Your task to perform on an android device: Open the calendar and show me this week's events? Image 0: 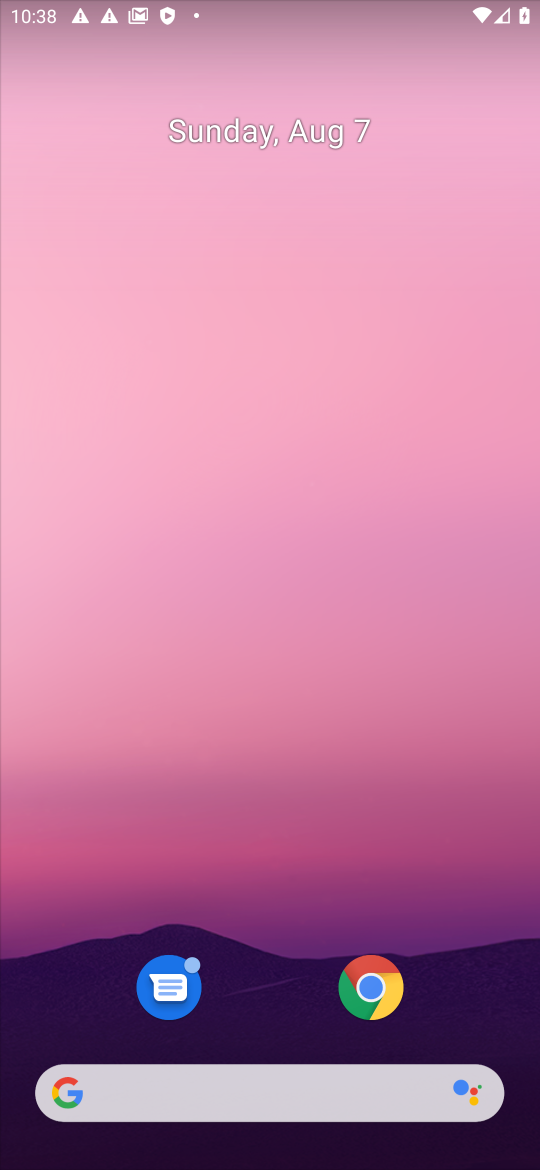
Step 0: drag from (285, 924) to (261, 507)
Your task to perform on an android device: Open the calendar and show me this week's events? Image 1: 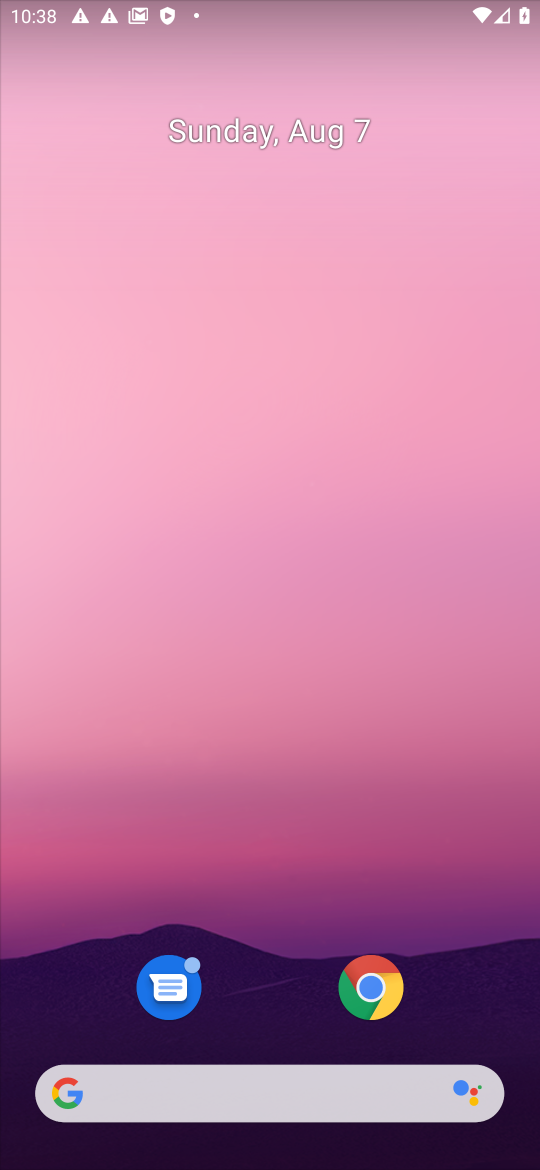
Step 1: drag from (235, 996) to (183, 50)
Your task to perform on an android device: Open the calendar and show me this week's events? Image 2: 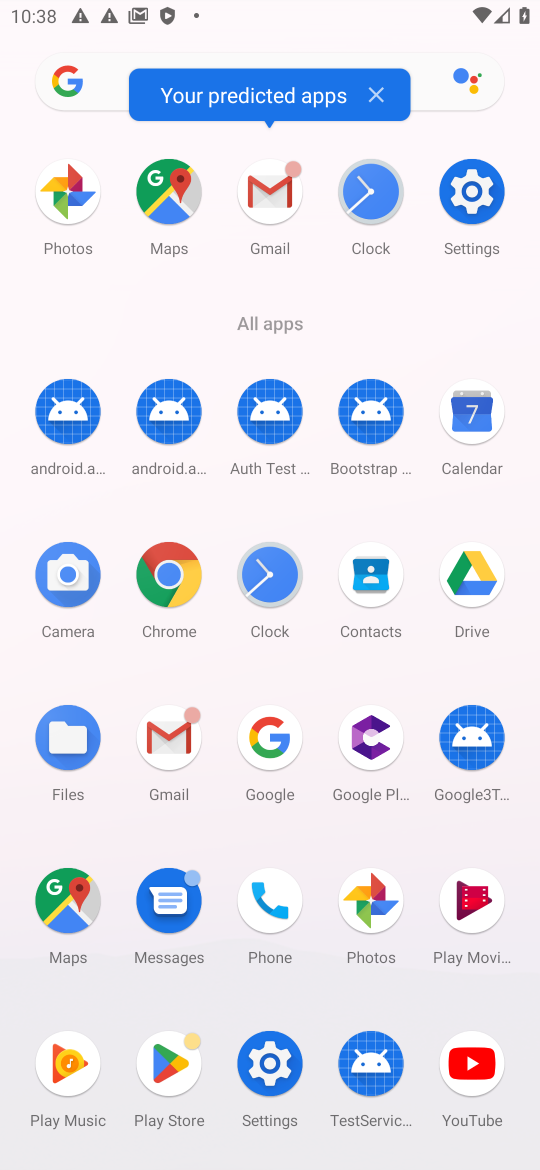
Step 2: click (468, 417)
Your task to perform on an android device: Open the calendar and show me this week's events? Image 3: 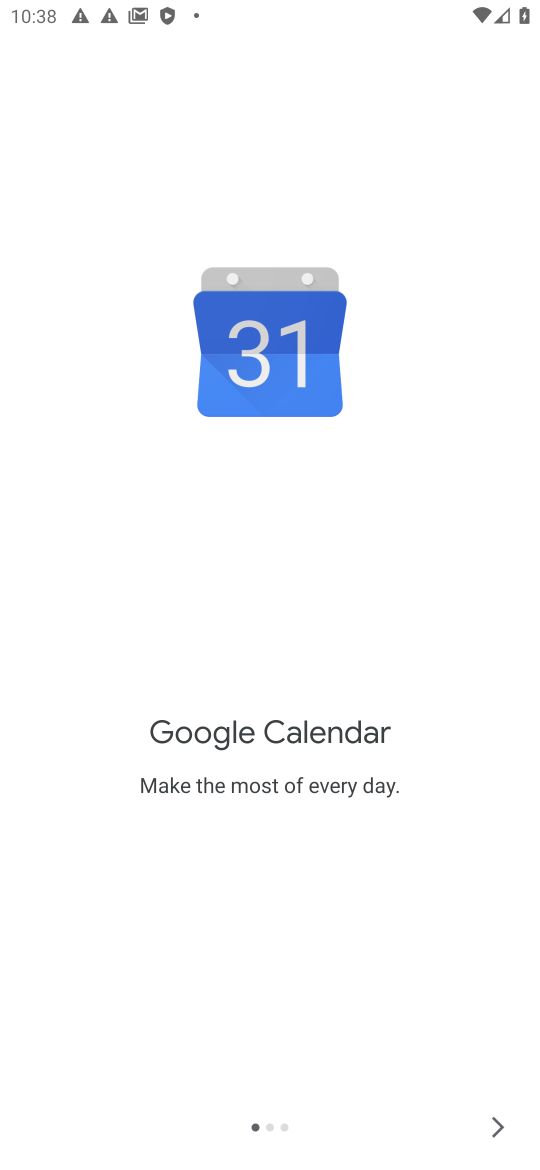
Step 3: click (497, 1128)
Your task to perform on an android device: Open the calendar and show me this week's events? Image 4: 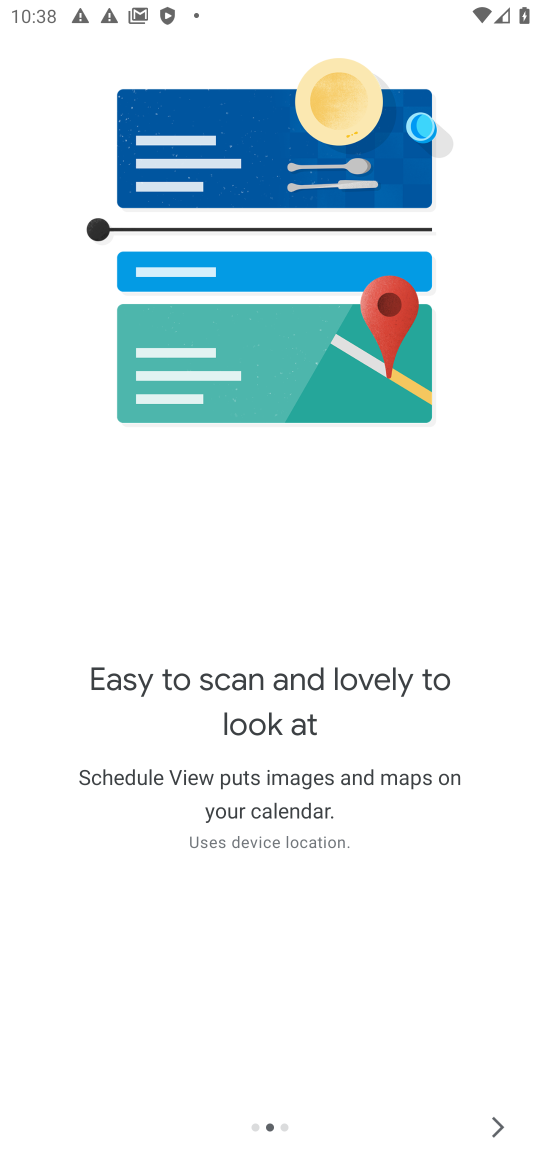
Step 4: click (497, 1128)
Your task to perform on an android device: Open the calendar and show me this week's events? Image 5: 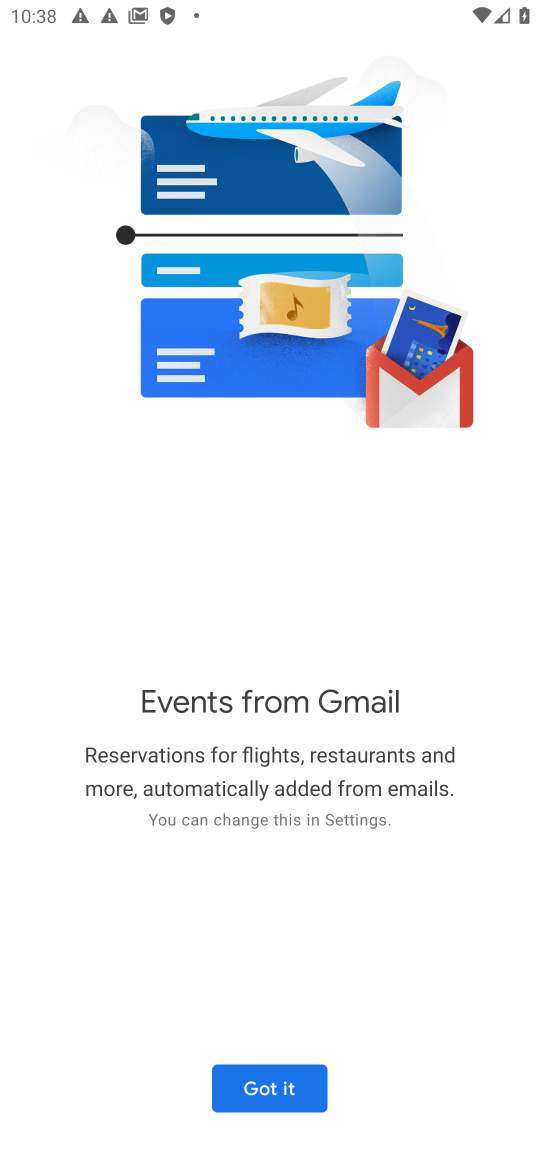
Step 5: click (276, 1082)
Your task to perform on an android device: Open the calendar and show me this week's events? Image 6: 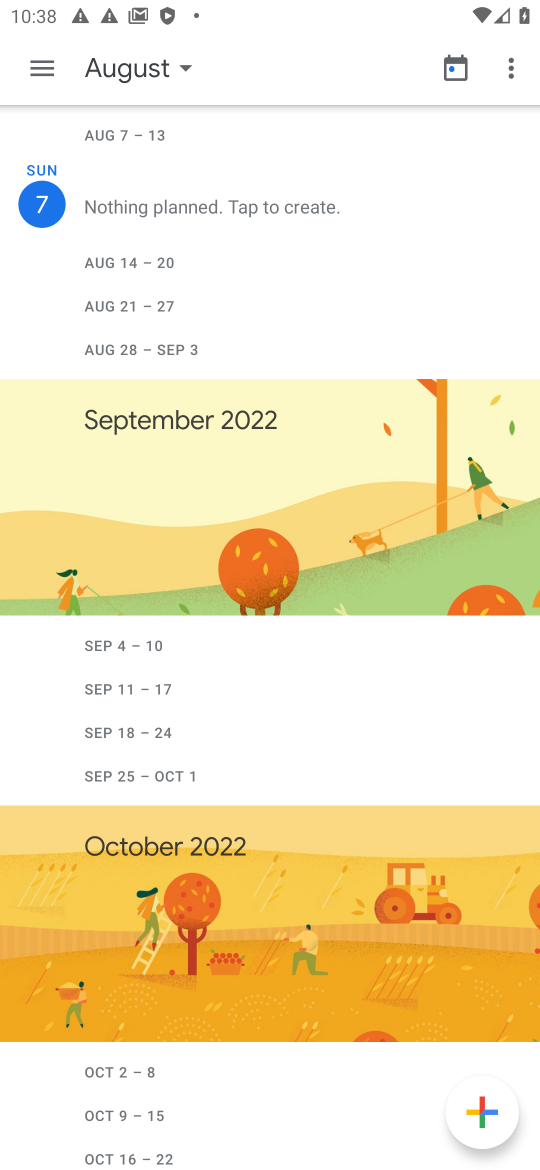
Step 6: click (130, 66)
Your task to perform on an android device: Open the calendar and show me this week's events? Image 7: 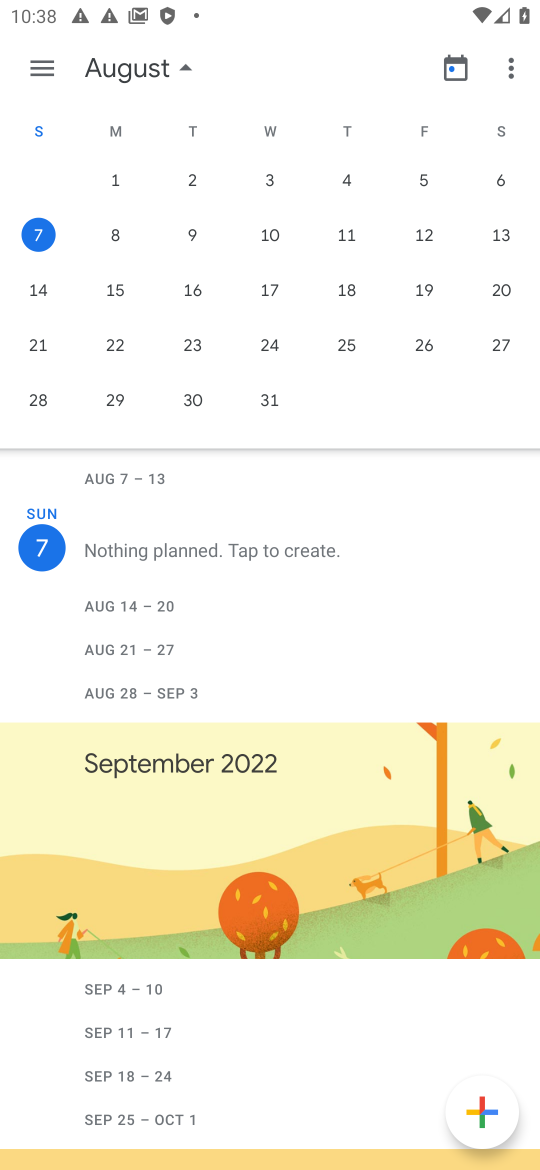
Step 7: click (109, 241)
Your task to perform on an android device: Open the calendar and show me this week's events? Image 8: 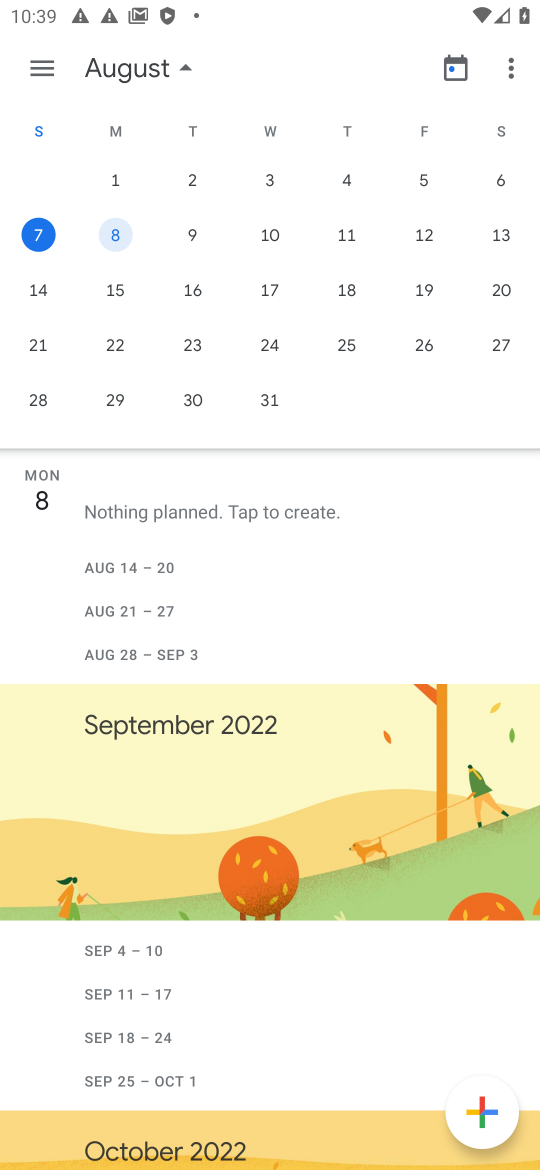
Step 8: click (181, 245)
Your task to perform on an android device: Open the calendar and show me this week's events? Image 9: 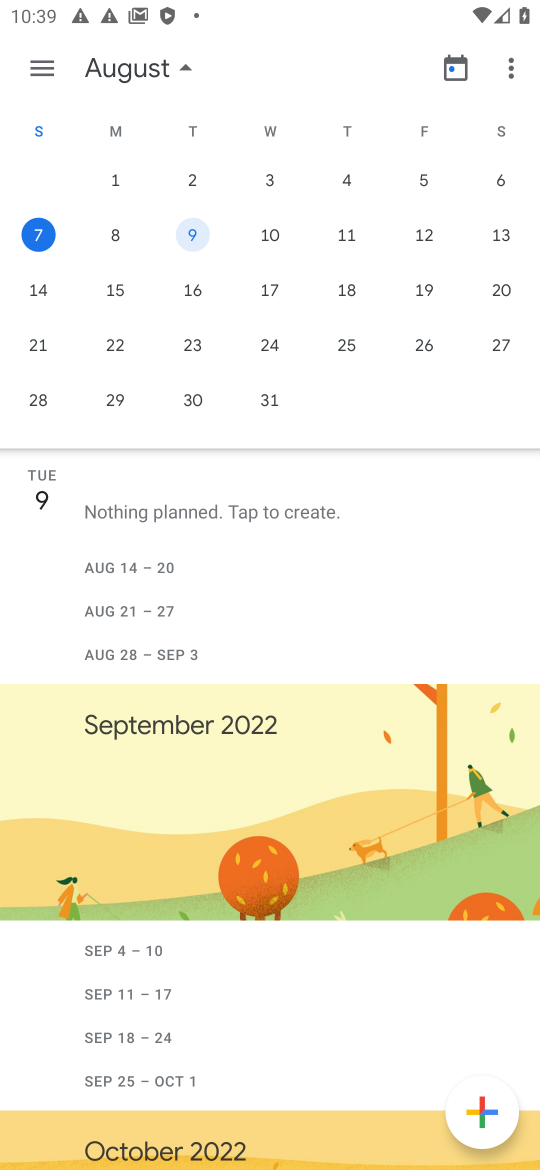
Step 9: click (254, 246)
Your task to perform on an android device: Open the calendar and show me this week's events? Image 10: 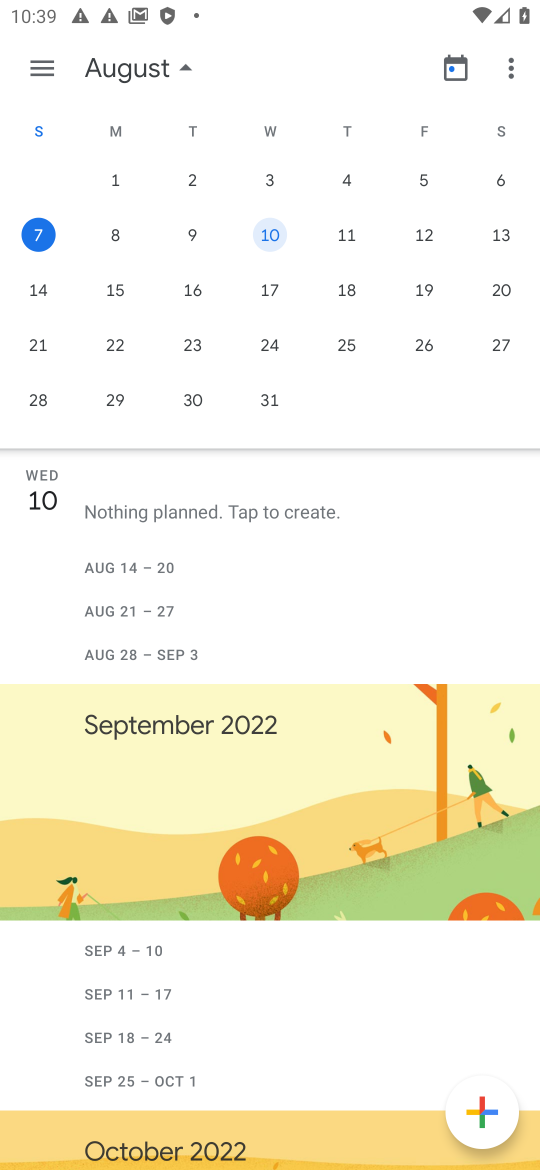
Step 10: click (350, 245)
Your task to perform on an android device: Open the calendar and show me this week's events? Image 11: 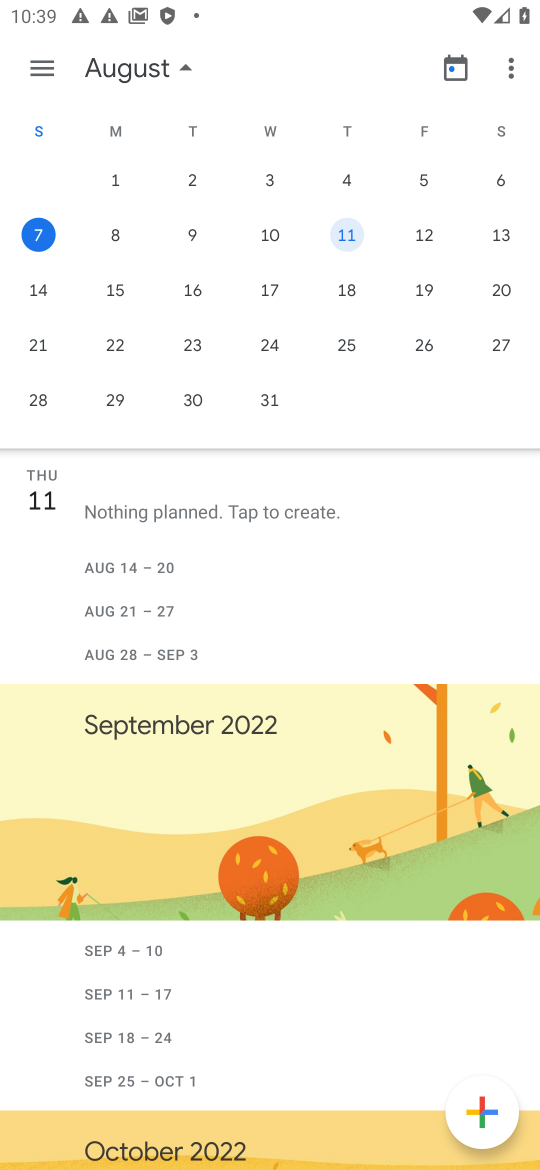
Step 11: click (431, 253)
Your task to perform on an android device: Open the calendar and show me this week's events? Image 12: 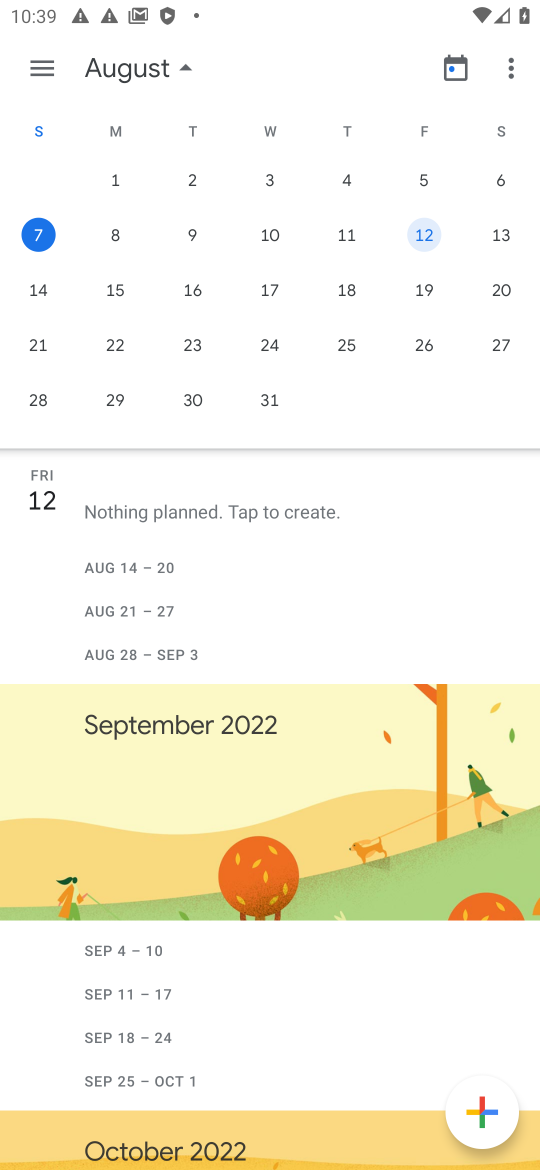
Step 12: click (499, 243)
Your task to perform on an android device: Open the calendar and show me this week's events? Image 13: 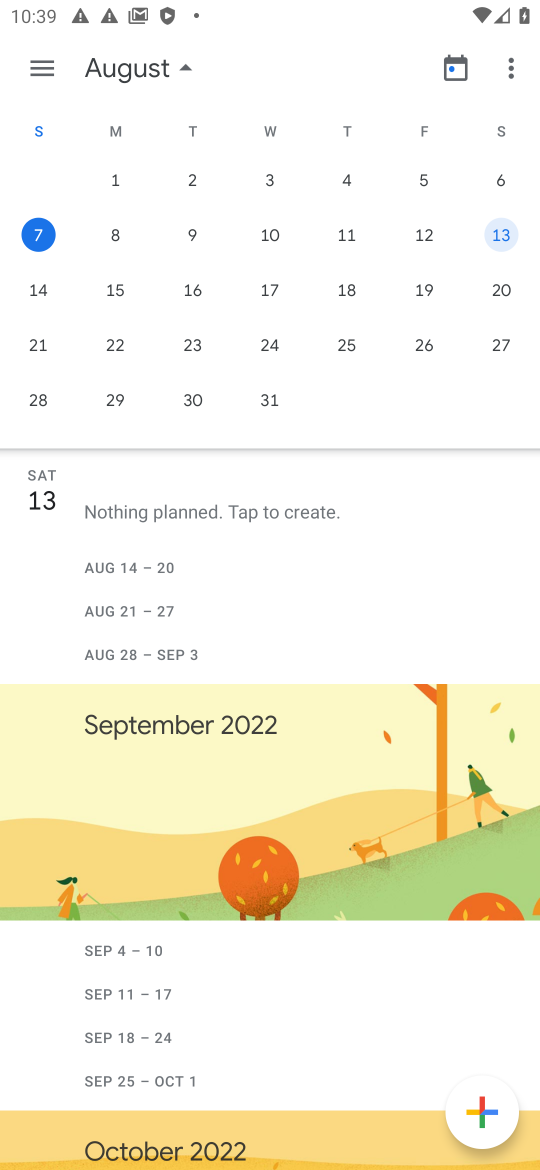
Step 13: task complete